Your task to perform on an android device: turn on sleep mode Image 0: 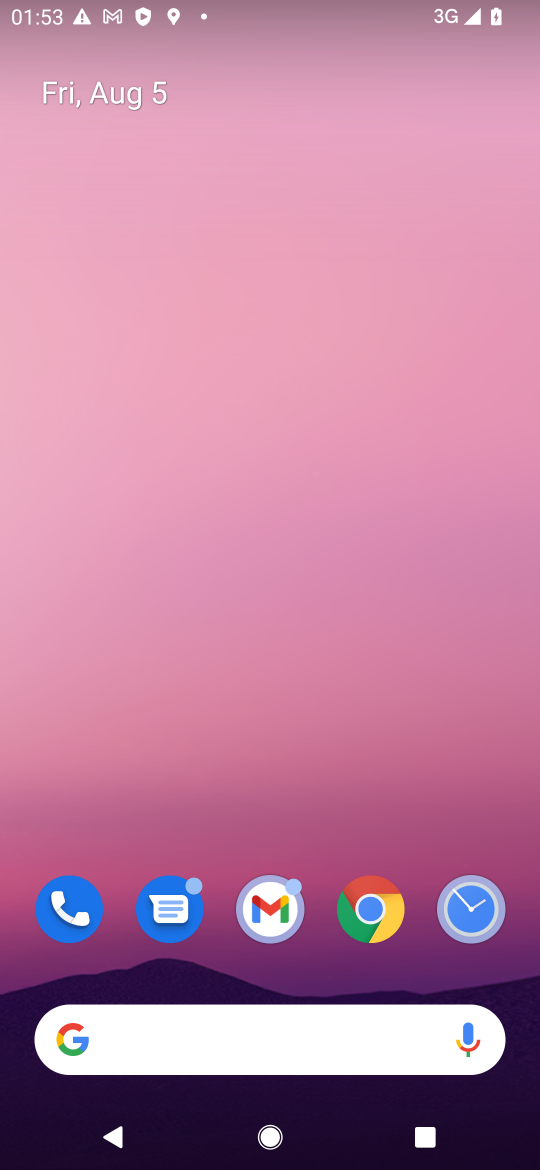
Step 0: drag from (298, 796) to (255, 63)
Your task to perform on an android device: turn on sleep mode Image 1: 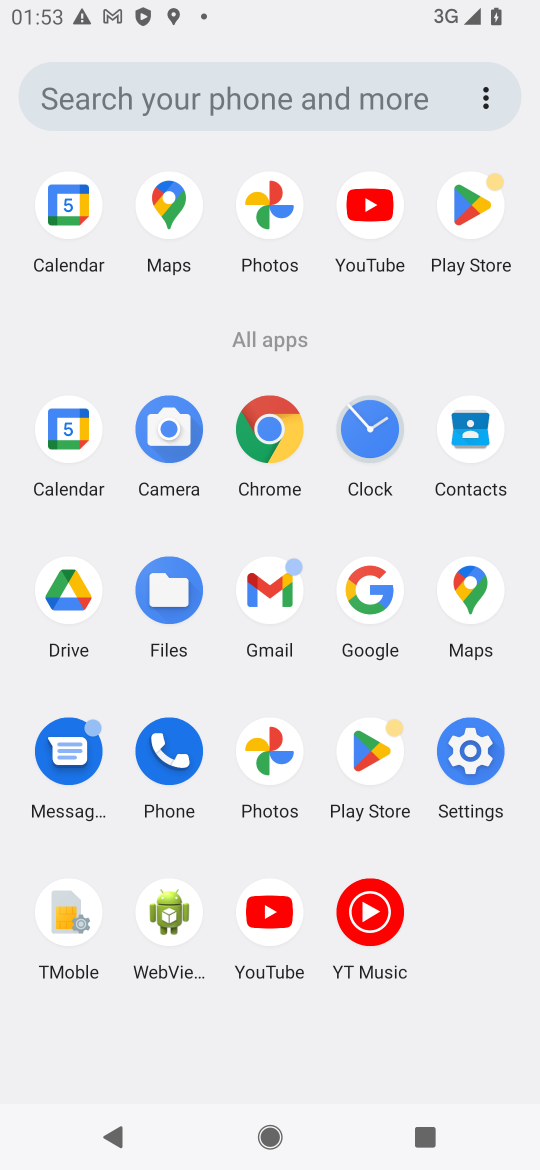
Step 1: click (474, 745)
Your task to perform on an android device: turn on sleep mode Image 2: 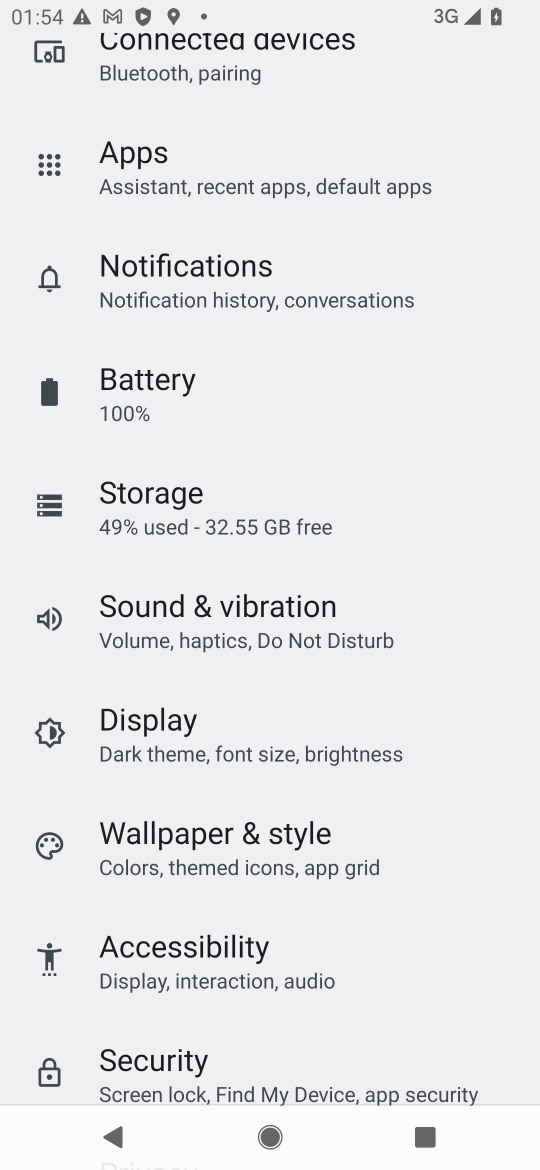
Step 2: click (163, 716)
Your task to perform on an android device: turn on sleep mode Image 3: 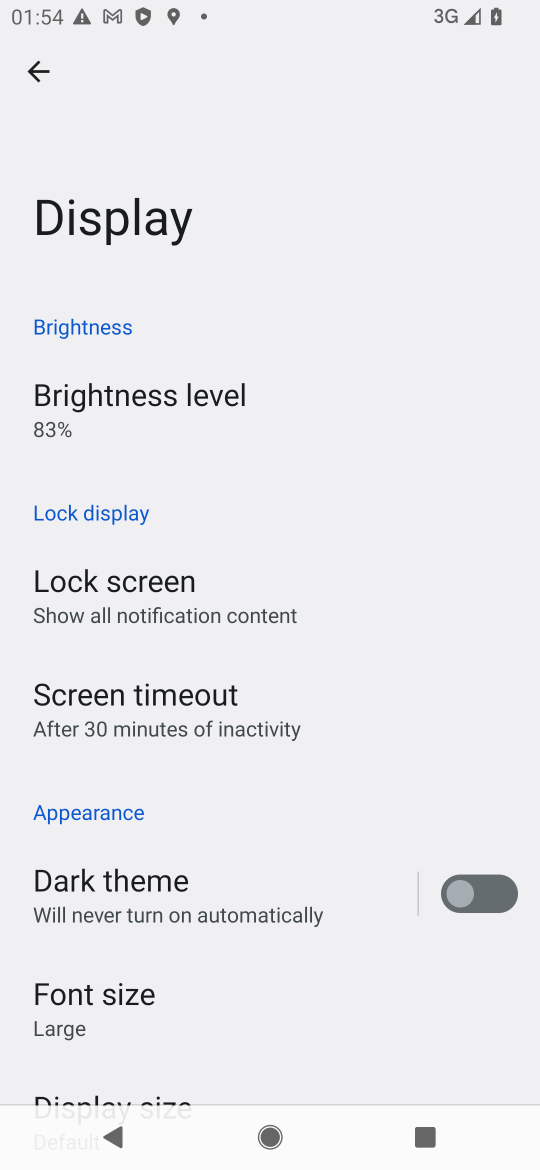
Step 3: task complete